Your task to perform on an android device: turn off translation in the chrome app Image 0: 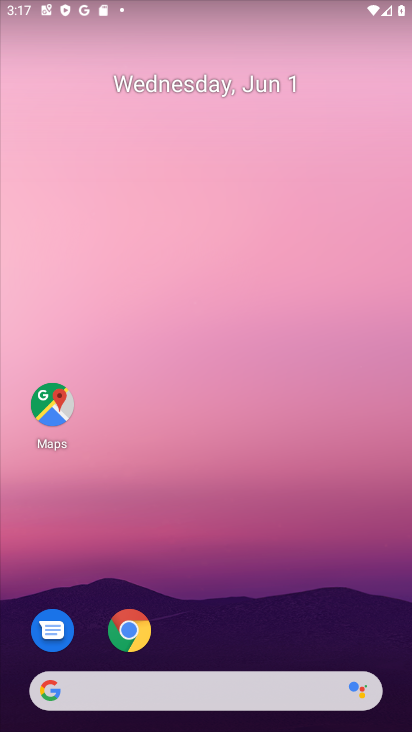
Step 0: click (105, 624)
Your task to perform on an android device: turn off translation in the chrome app Image 1: 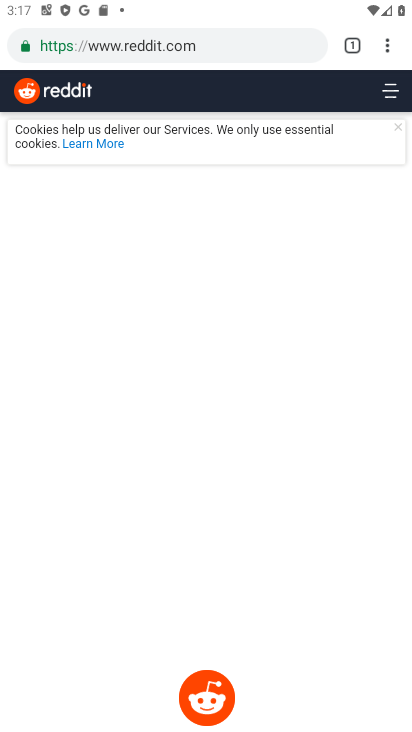
Step 1: drag from (390, 39) to (231, 542)
Your task to perform on an android device: turn off translation in the chrome app Image 2: 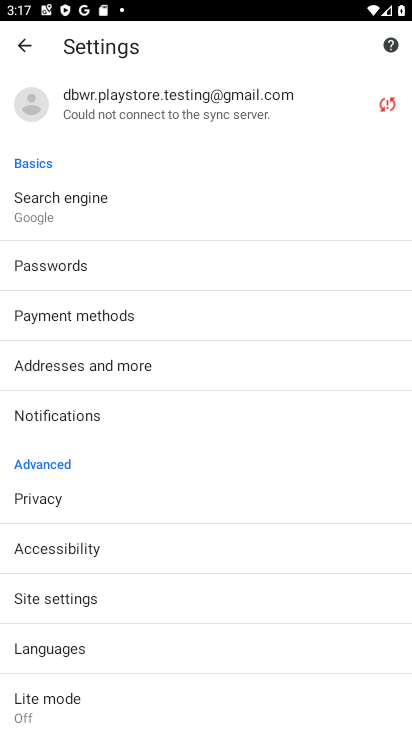
Step 2: click (27, 651)
Your task to perform on an android device: turn off translation in the chrome app Image 3: 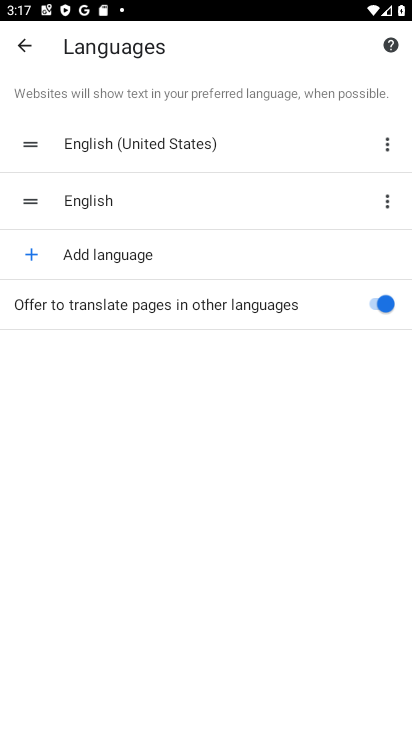
Step 3: click (377, 305)
Your task to perform on an android device: turn off translation in the chrome app Image 4: 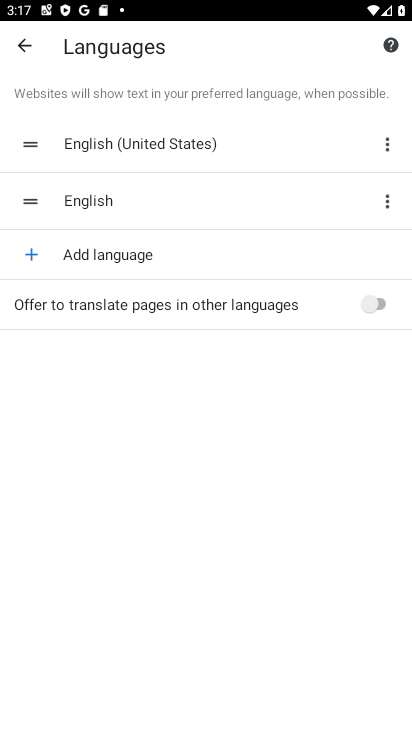
Step 4: task complete